Your task to perform on an android device: toggle wifi Image 0: 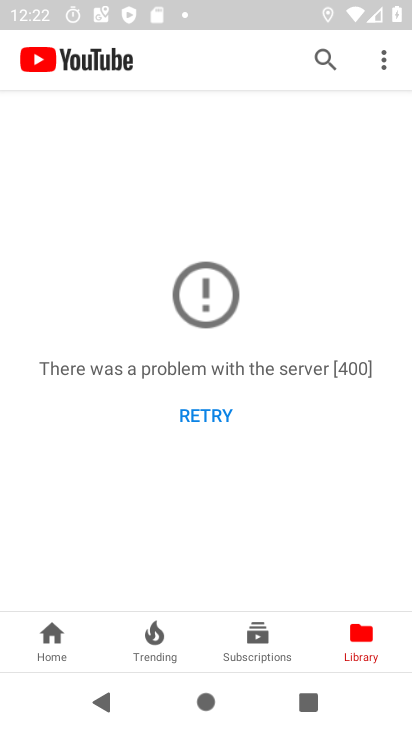
Step 0: press home button
Your task to perform on an android device: toggle wifi Image 1: 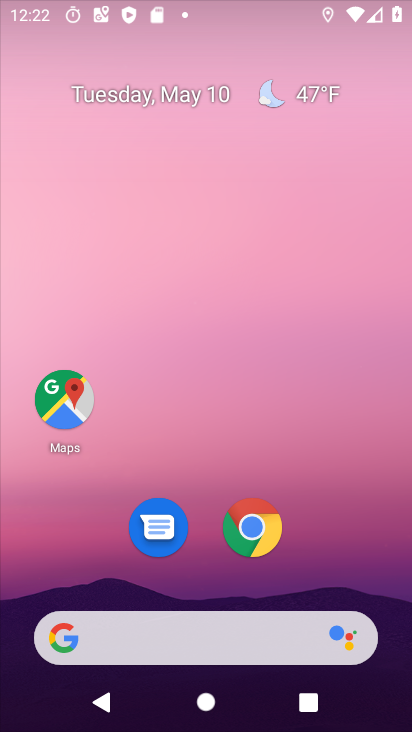
Step 1: drag from (326, 530) to (301, 133)
Your task to perform on an android device: toggle wifi Image 2: 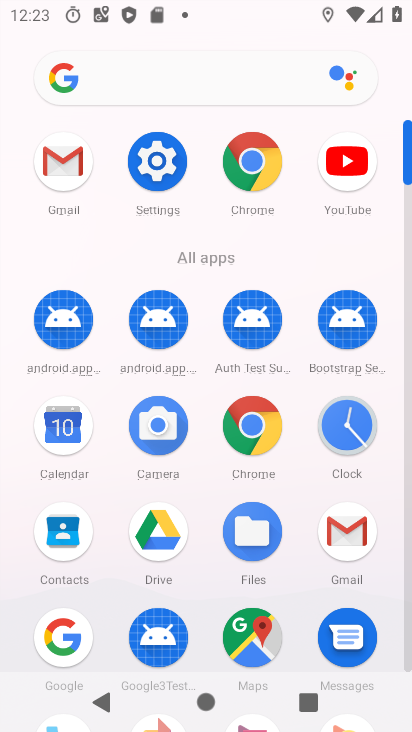
Step 2: click (164, 172)
Your task to perform on an android device: toggle wifi Image 3: 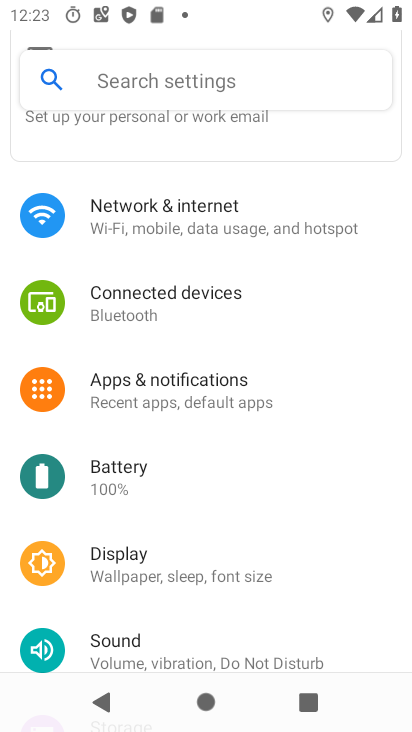
Step 3: click (247, 222)
Your task to perform on an android device: toggle wifi Image 4: 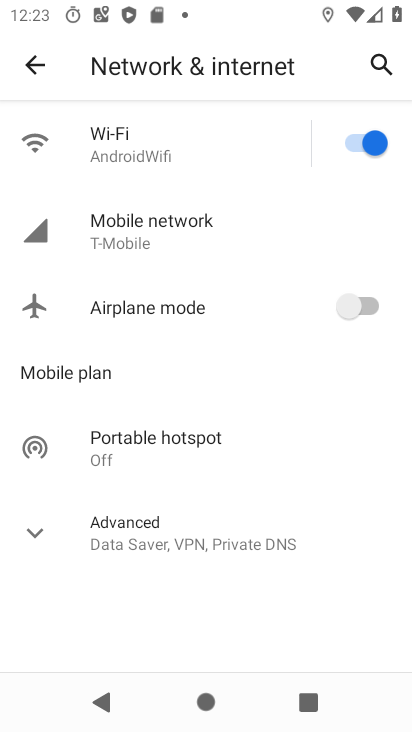
Step 4: click (355, 143)
Your task to perform on an android device: toggle wifi Image 5: 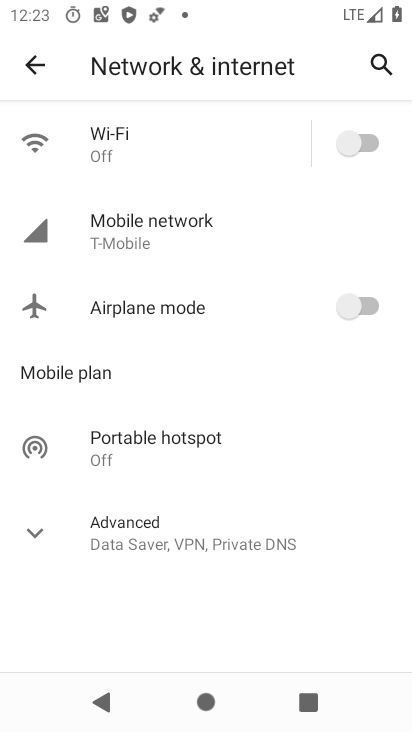
Step 5: task complete